Your task to perform on an android device: uninstall "Etsy: Buy & Sell Unique Items" Image 0: 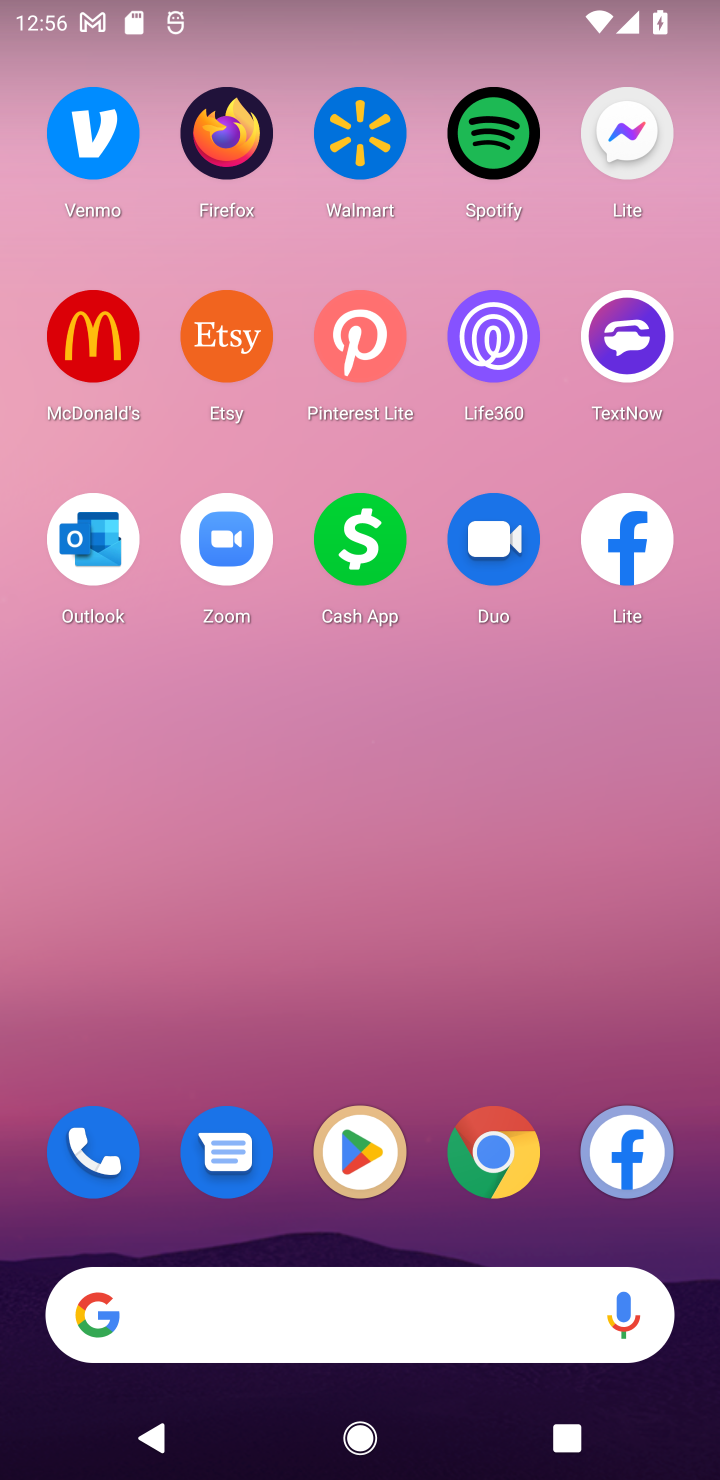
Step 0: click (349, 1172)
Your task to perform on an android device: uninstall "Etsy: Buy & Sell Unique Items" Image 1: 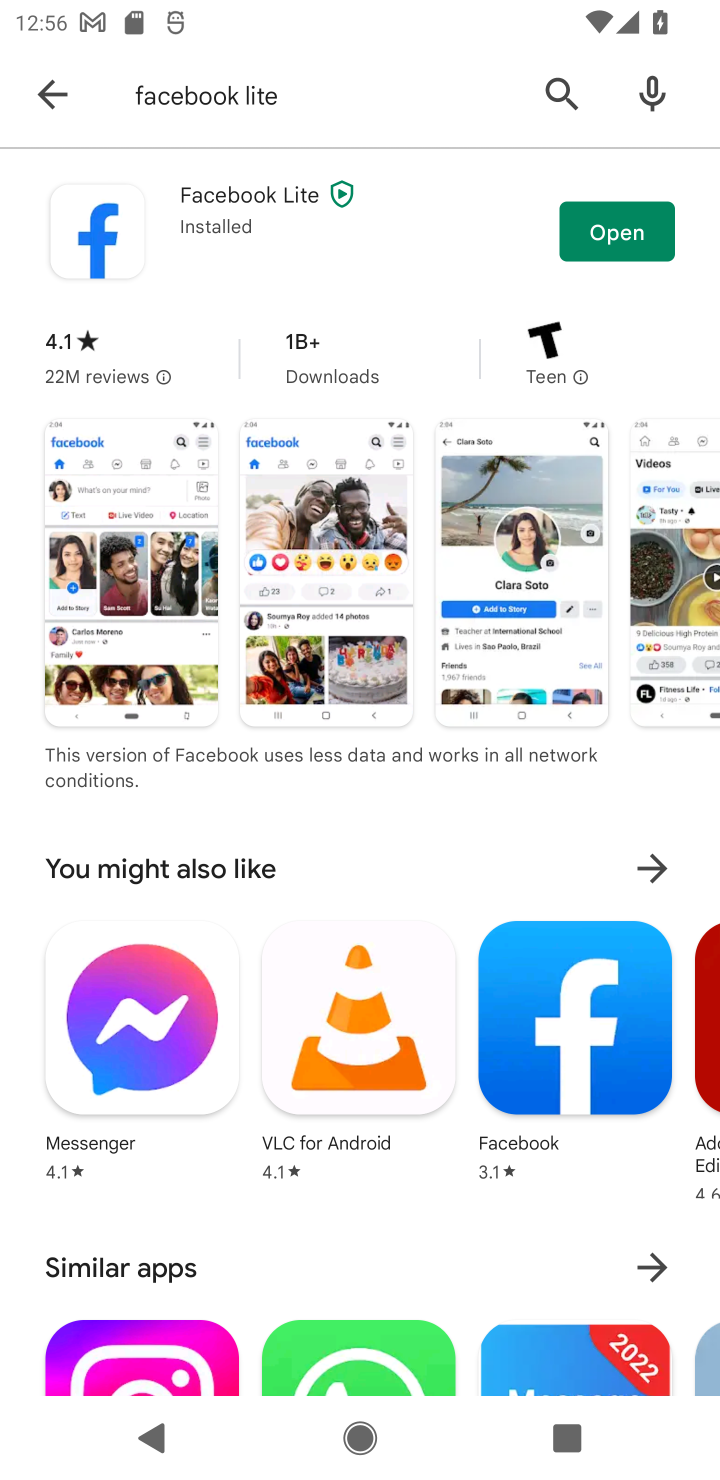
Step 1: click (36, 84)
Your task to perform on an android device: uninstall "Etsy: Buy & Sell Unique Items" Image 2: 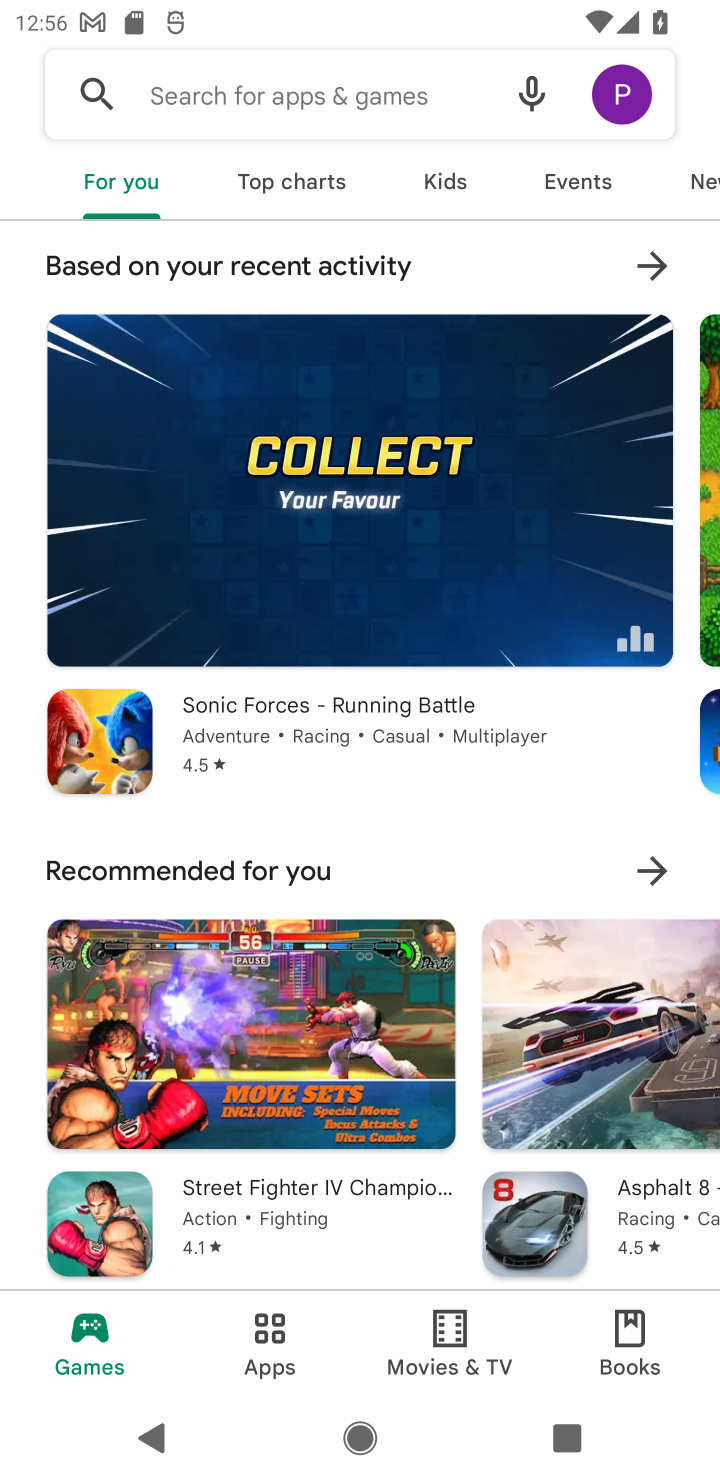
Step 2: click (252, 68)
Your task to perform on an android device: uninstall "Etsy: Buy & Sell Unique Items" Image 3: 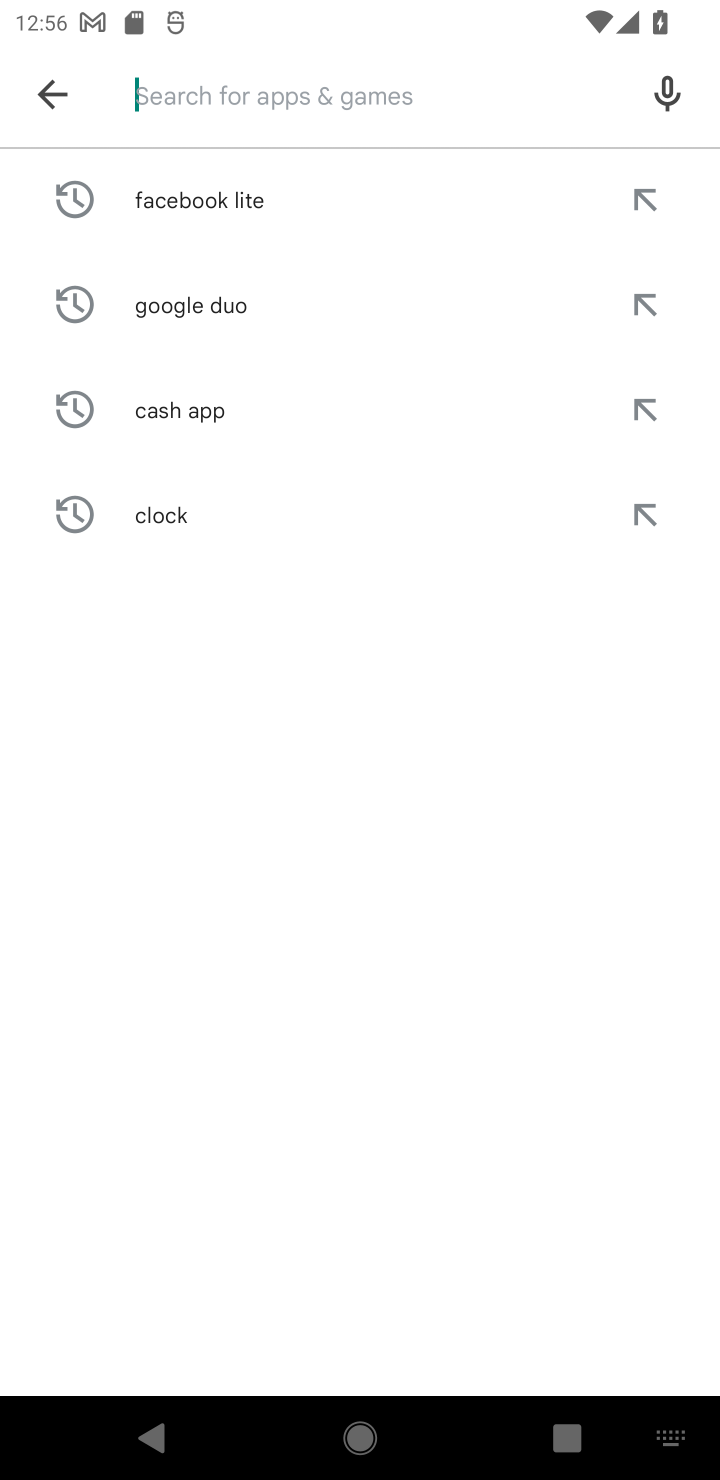
Step 3: type "Etsy"
Your task to perform on an android device: uninstall "Etsy: Buy & Sell Unique Items" Image 4: 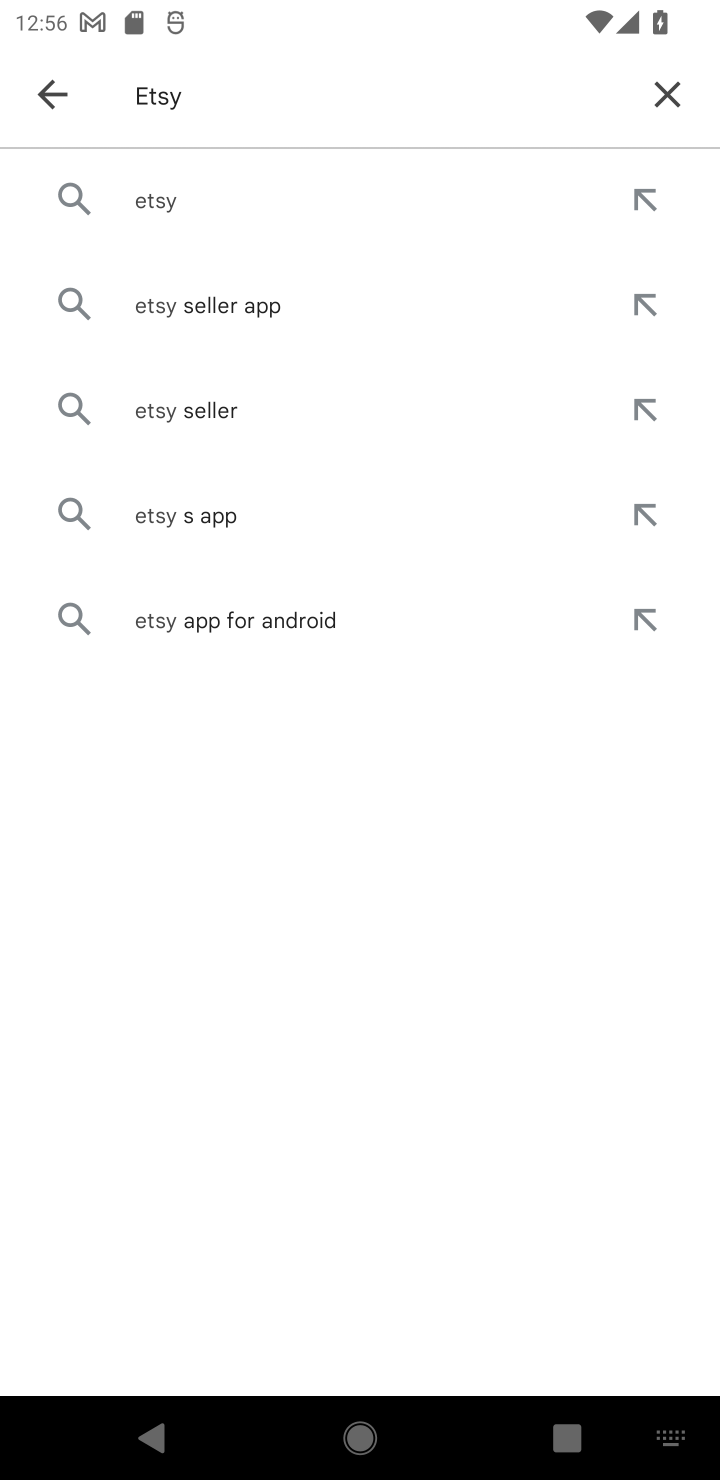
Step 4: click (140, 225)
Your task to perform on an android device: uninstall "Etsy: Buy & Sell Unique Items" Image 5: 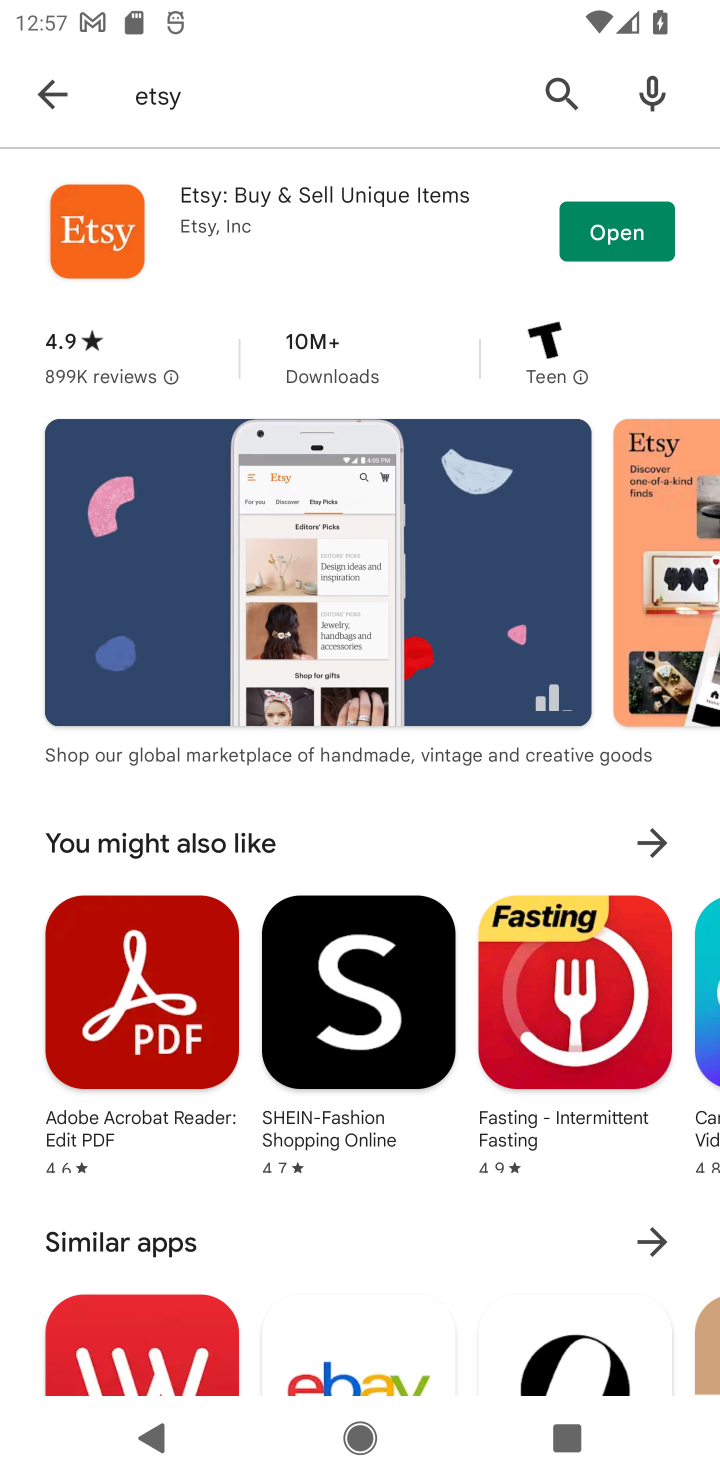
Step 5: click (257, 183)
Your task to perform on an android device: uninstall "Etsy: Buy & Sell Unique Items" Image 6: 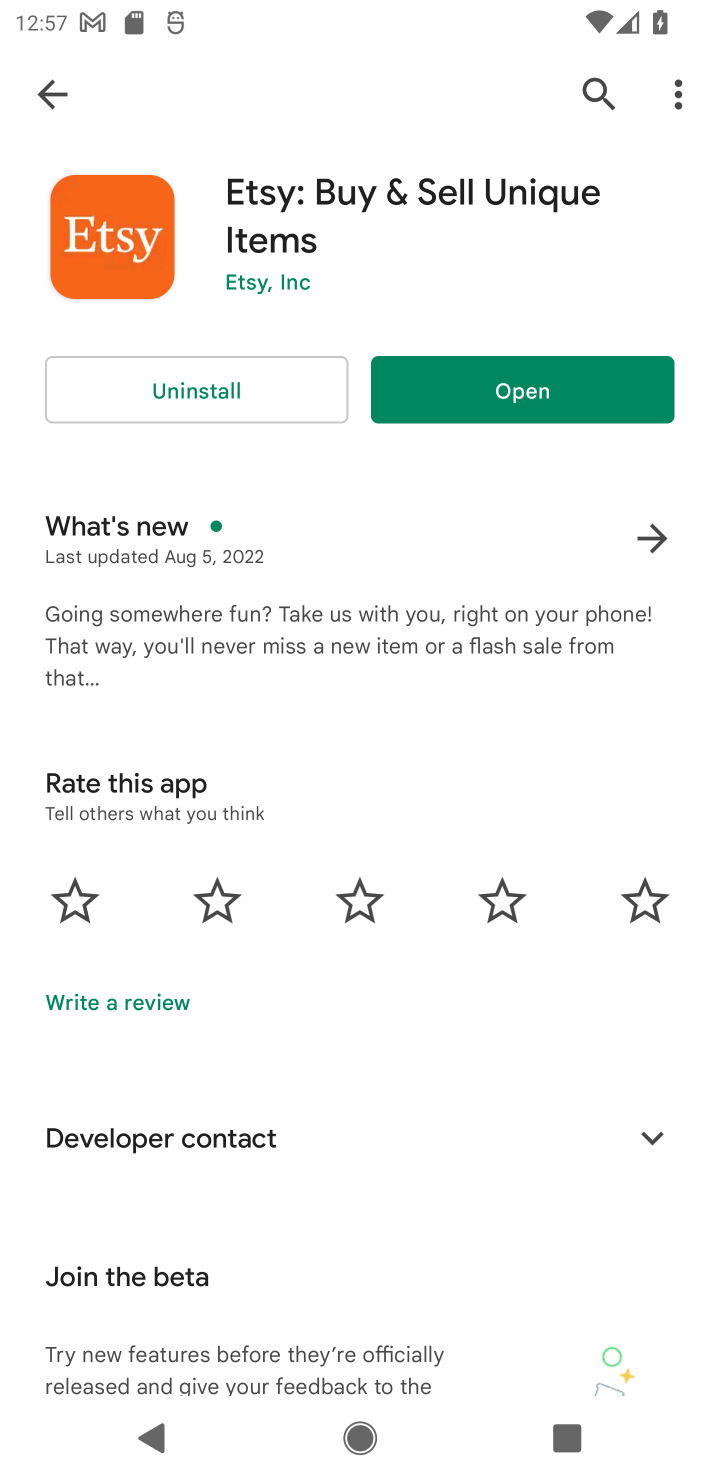
Step 6: click (189, 386)
Your task to perform on an android device: uninstall "Etsy: Buy & Sell Unique Items" Image 7: 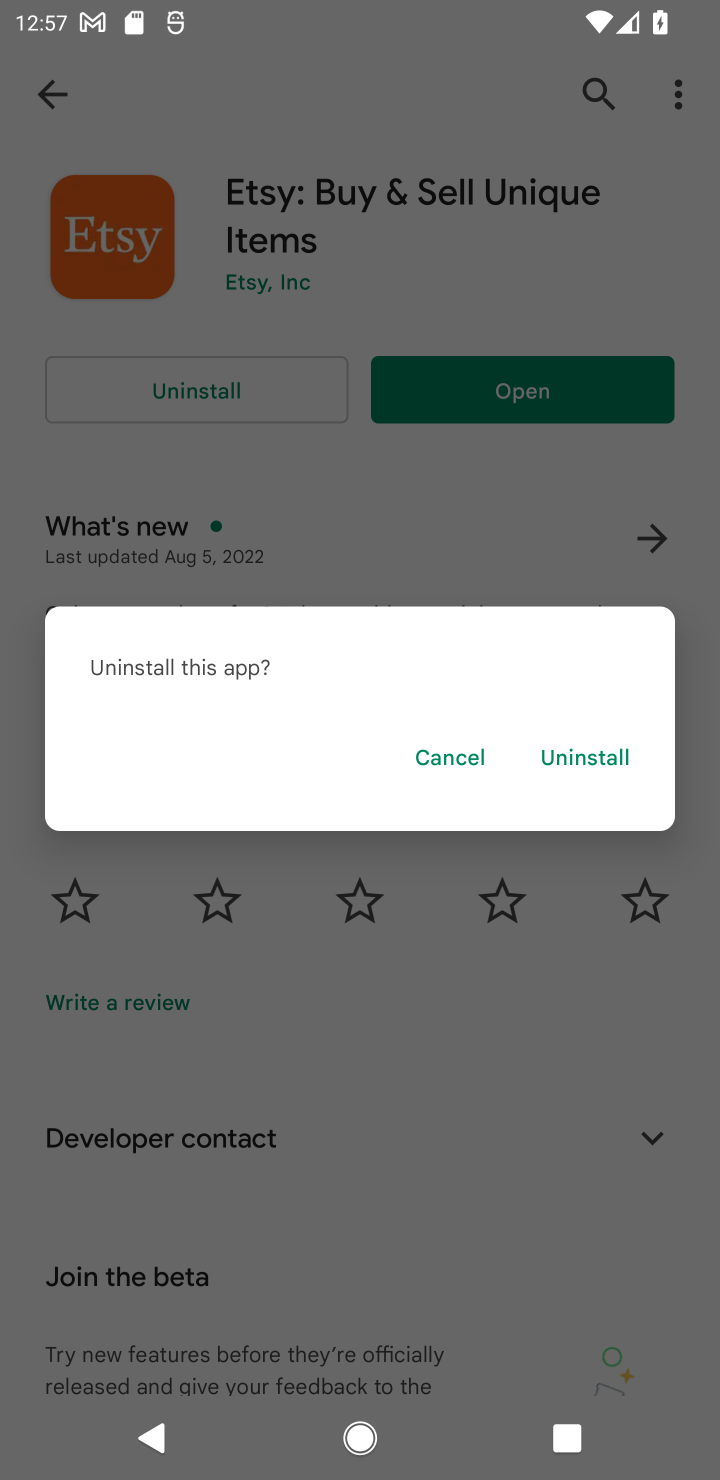
Step 7: click (592, 770)
Your task to perform on an android device: uninstall "Etsy: Buy & Sell Unique Items" Image 8: 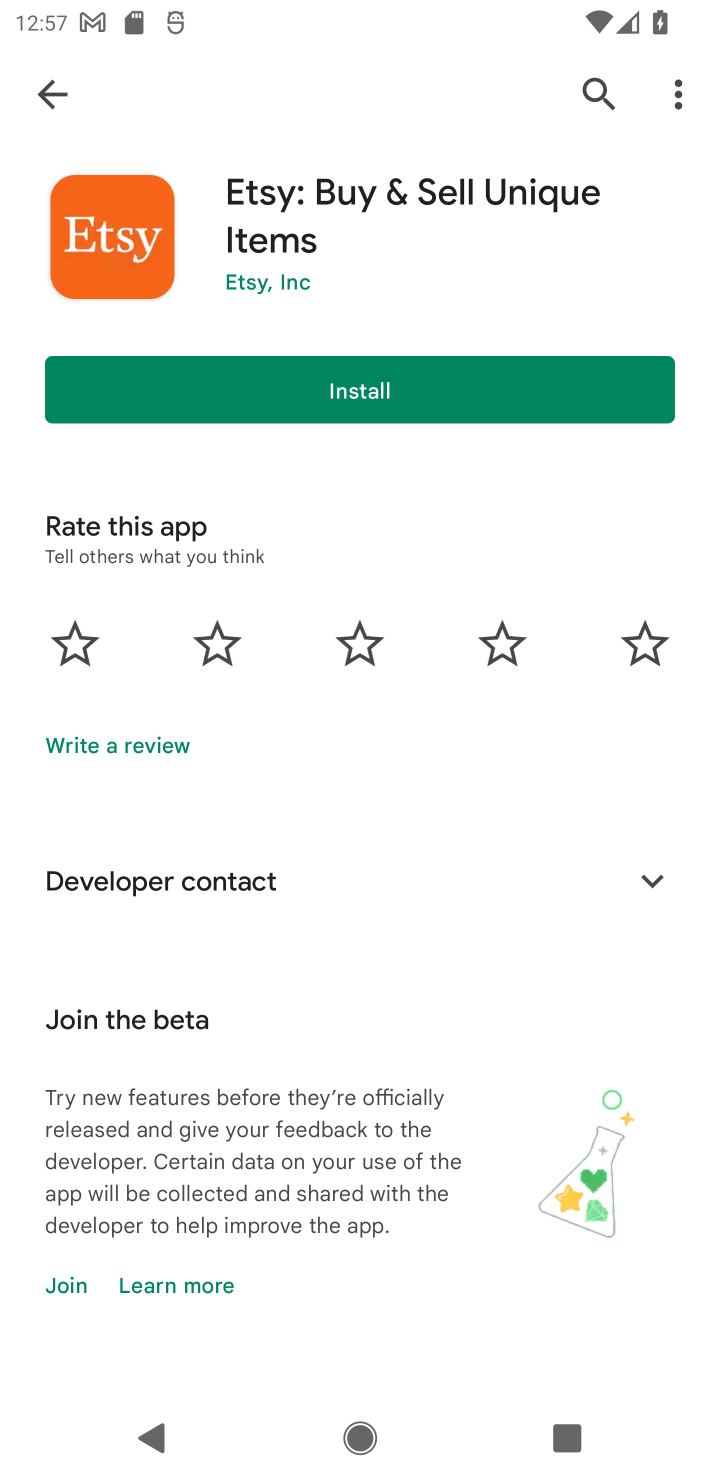
Step 8: task complete